Your task to perform on an android device: open a new tab in the chrome app Image 0: 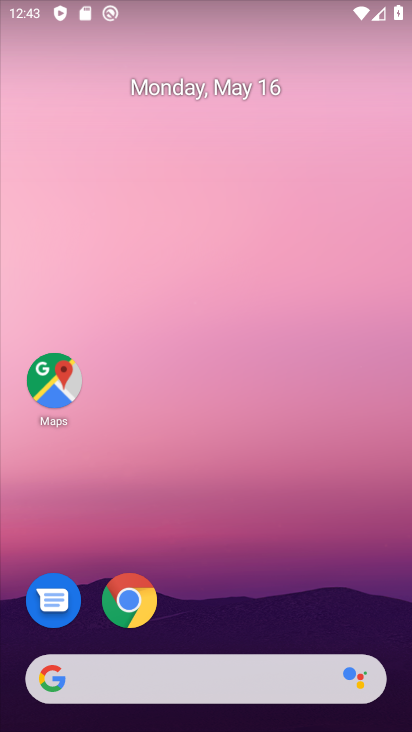
Step 0: drag from (372, 613) to (368, 114)
Your task to perform on an android device: open a new tab in the chrome app Image 1: 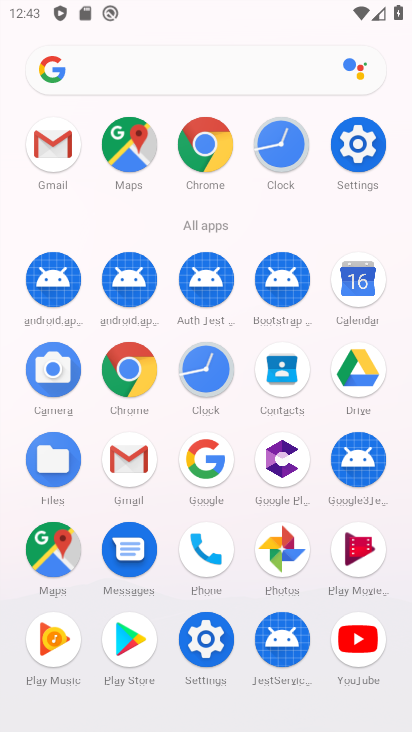
Step 1: click (134, 375)
Your task to perform on an android device: open a new tab in the chrome app Image 2: 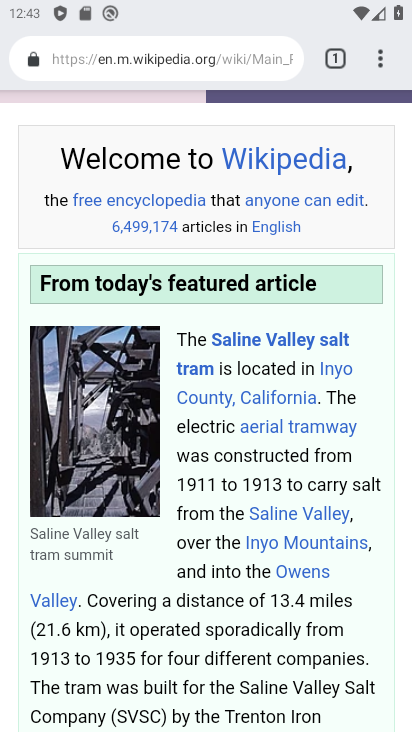
Step 2: click (384, 64)
Your task to perform on an android device: open a new tab in the chrome app Image 3: 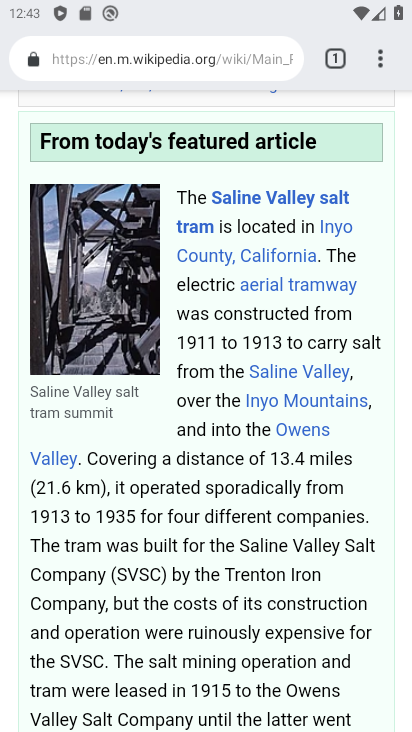
Step 3: click (382, 64)
Your task to perform on an android device: open a new tab in the chrome app Image 4: 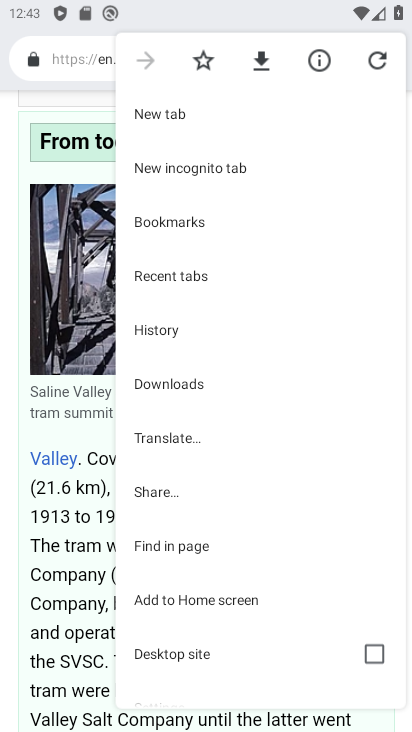
Step 4: click (184, 115)
Your task to perform on an android device: open a new tab in the chrome app Image 5: 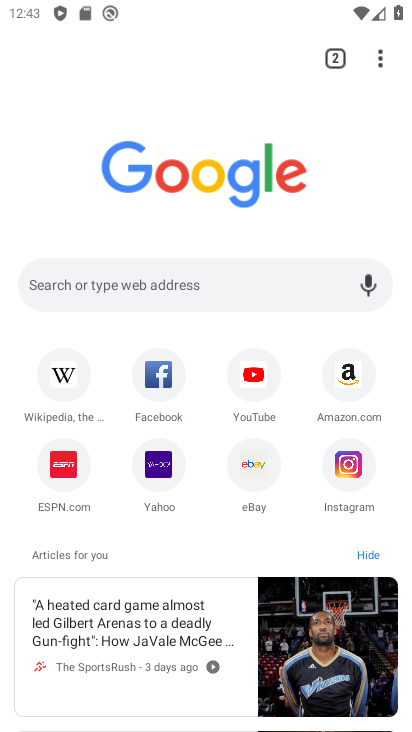
Step 5: task complete